Your task to perform on an android device: turn off notifications in google photos Image 0: 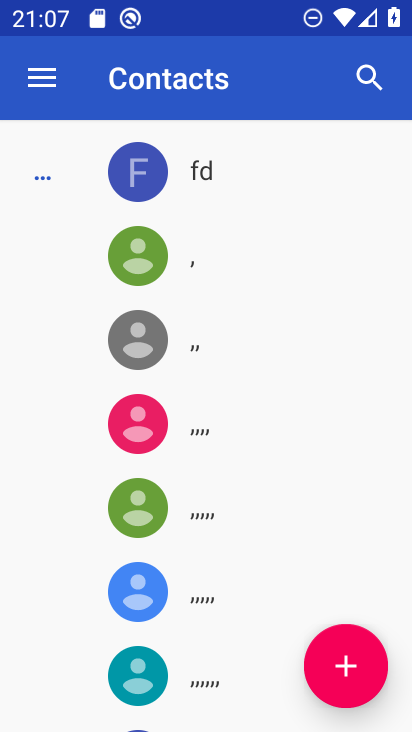
Step 0: press home button
Your task to perform on an android device: turn off notifications in google photos Image 1: 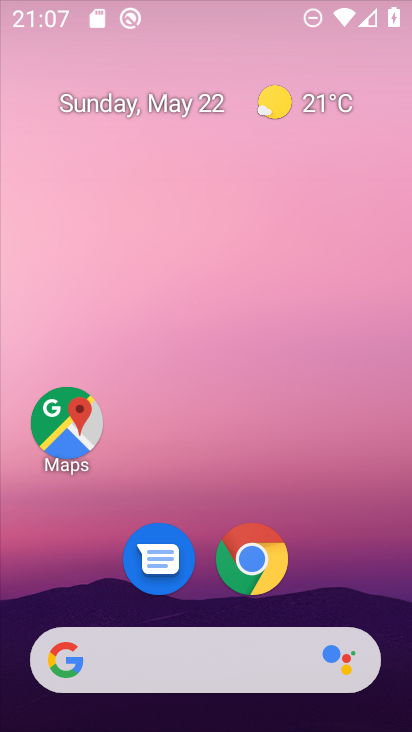
Step 1: drag from (259, 679) to (217, 156)
Your task to perform on an android device: turn off notifications in google photos Image 2: 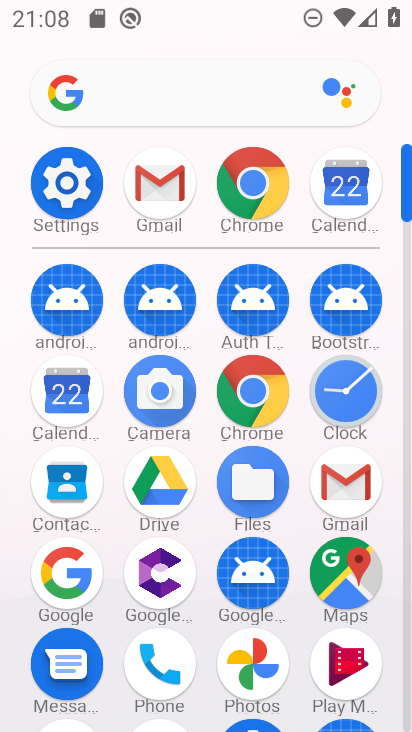
Step 2: click (248, 650)
Your task to perform on an android device: turn off notifications in google photos Image 3: 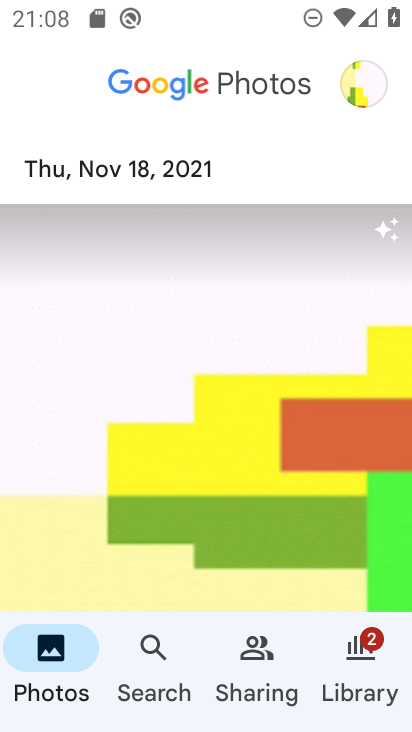
Step 3: click (355, 88)
Your task to perform on an android device: turn off notifications in google photos Image 4: 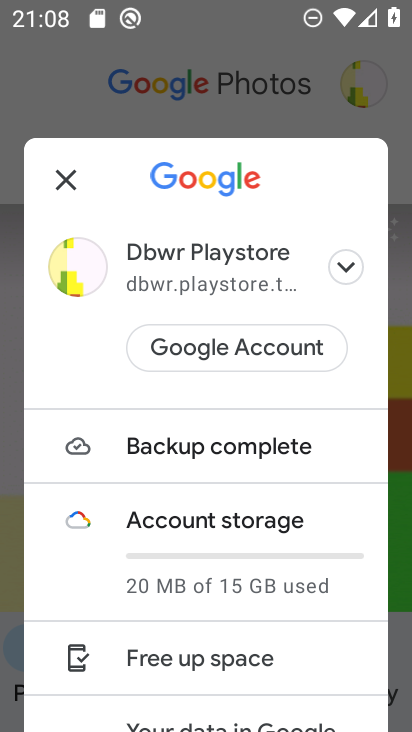
Step 4: drag from (219, 675) to (205, 413)
Your task to perform on an android device: turn off notifications in google photos Image 5: 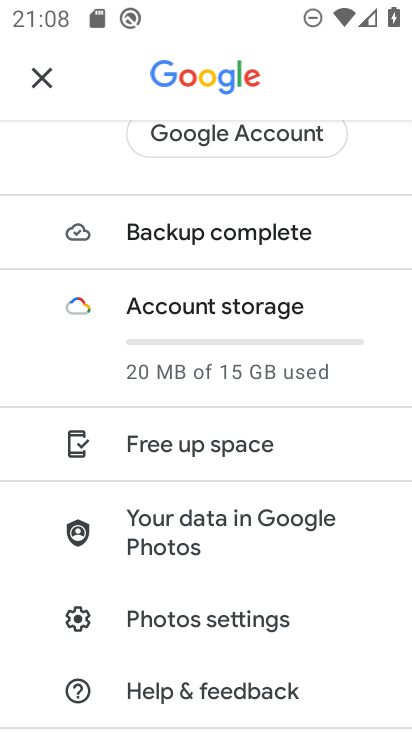
Step 5: click (202, 622)
Your task to perform on an android device: turn off notifications in google photos Image 6: 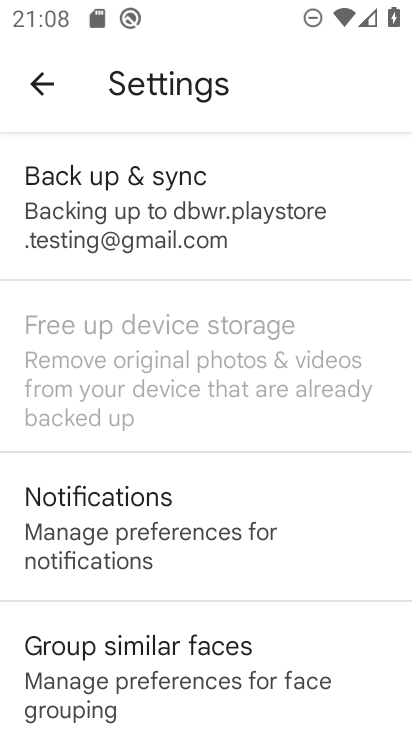
Step 6: click (128, 555)
Your task to perform on an android device: turn off notifications in google photos Image 7: 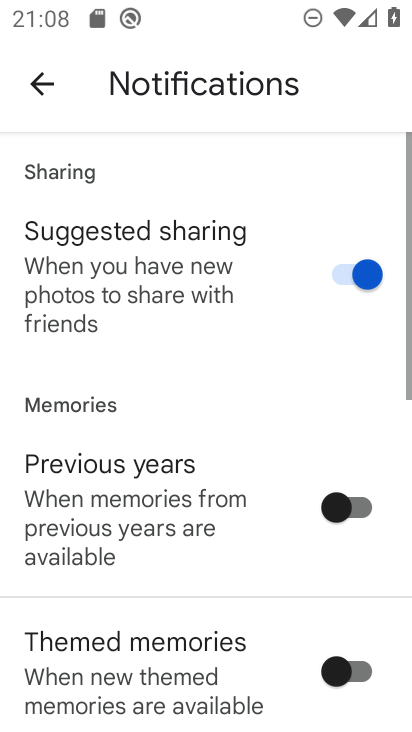
Step 7: drag from (188, 623) to (208, 353)
Your task to perform on an android device: turn off notifications in google photos Image 8: 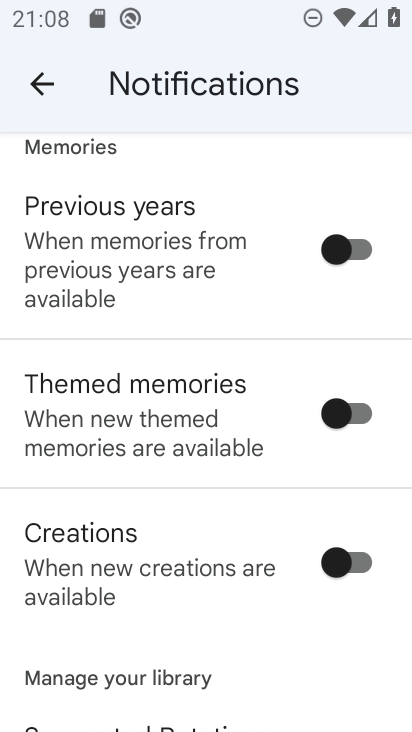
Step 8: drag from (228, 617) to (216, 356)
Your task to perform on an android device: turn off notifications in google photos Image 9: 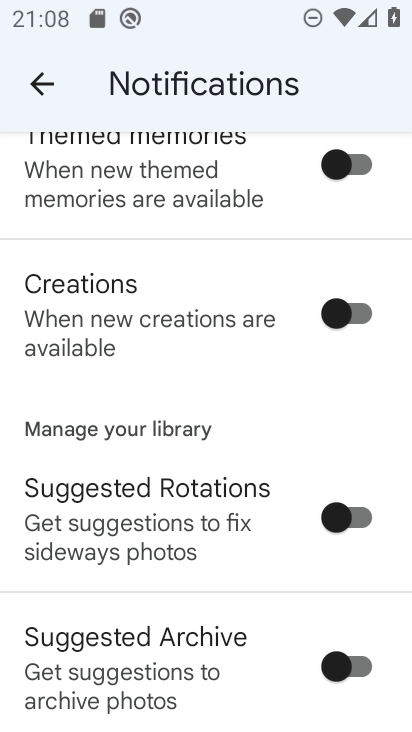
Step 9: drag from (172, 631) to (148, 334)
Your task to perform on an android device: turn off notifications in google photos Image 10: 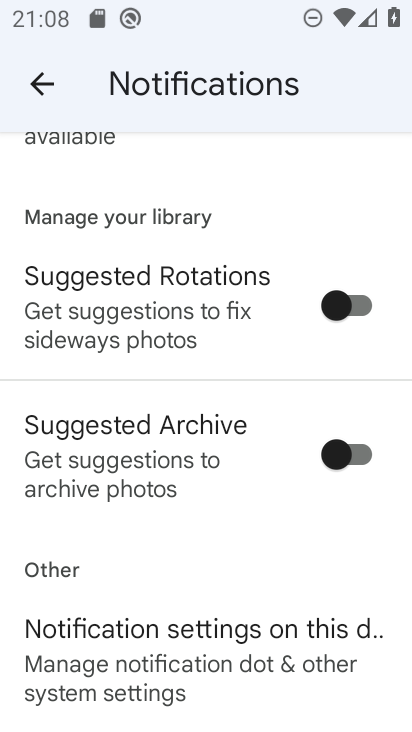
Step 10: click (161, 645)
Your task to perform on an android device: turn off notifications in google photos Image 11: 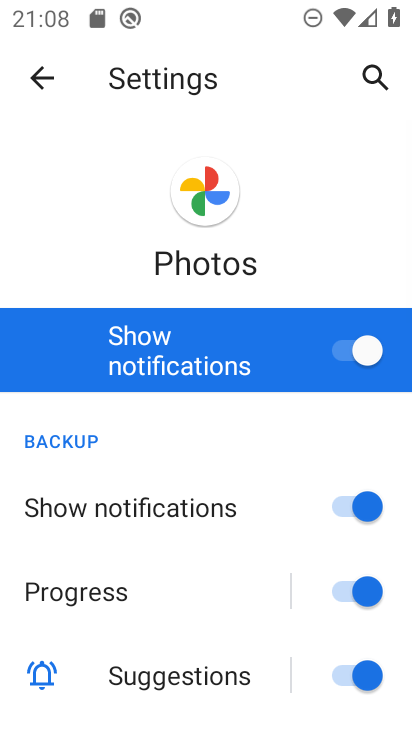
Step 11: click (360, 343)
Your task to perform on an android device: turn off notifications in google photos Image 12: 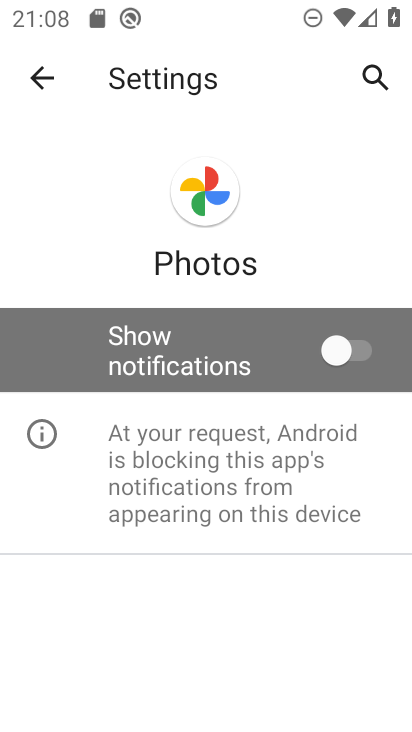
Step 12: task complete